Your task to perform on an android device: What is the news today? Image 0: 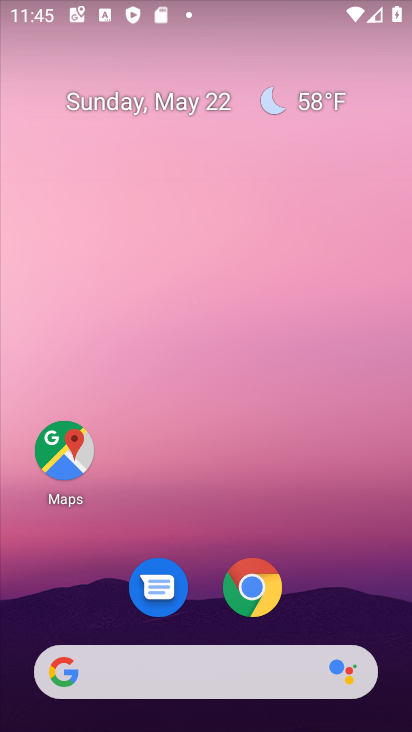
Step 0: click (277, 660)
Your task to perform on an android device: What is the news today? Image 1: 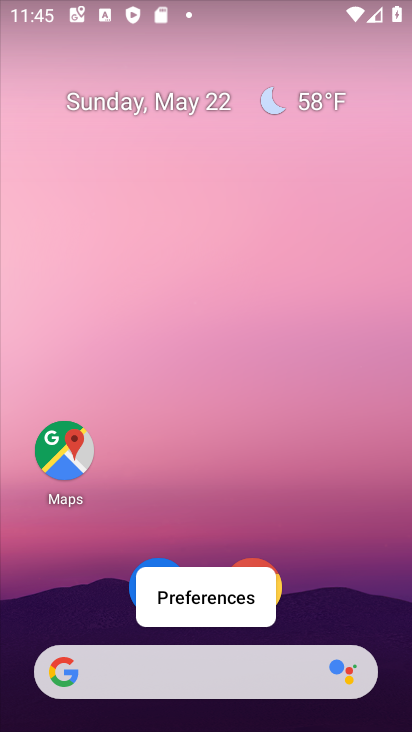
Step 1: click (100, 660)
Your task to perform on an android device: What is the news today? Image 2: 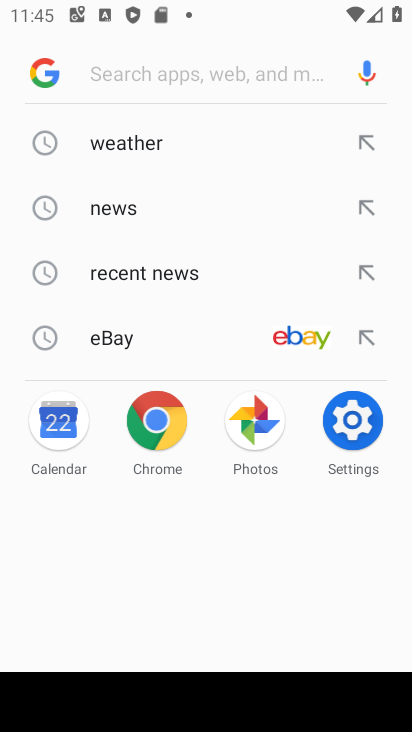
Step 2: click (76, 201)
Your task to perform on an android device: What is the news today? Image 3: 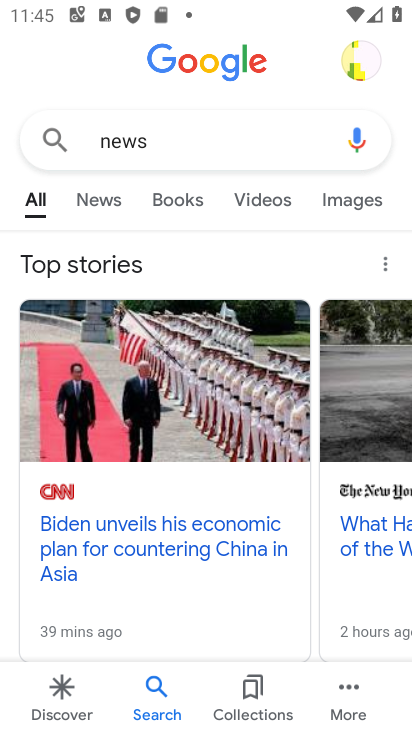
Step 3: click (83, 185)
Your task to perform on an android device: What is the news today? Image 4: 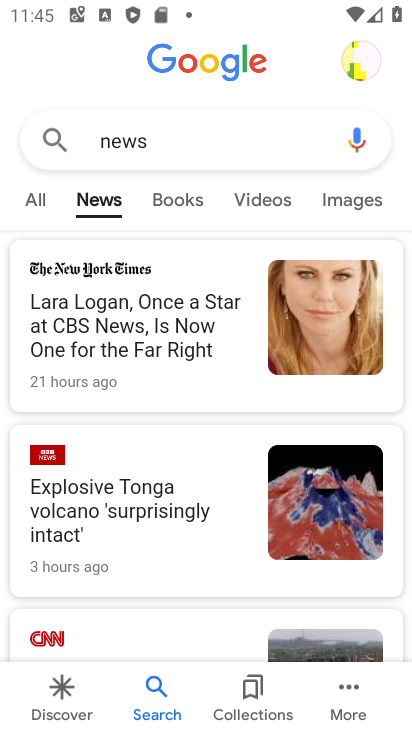
Step 4: task complete